Your task to perform on an android device: search for starred emails in the gmail app Image 0: 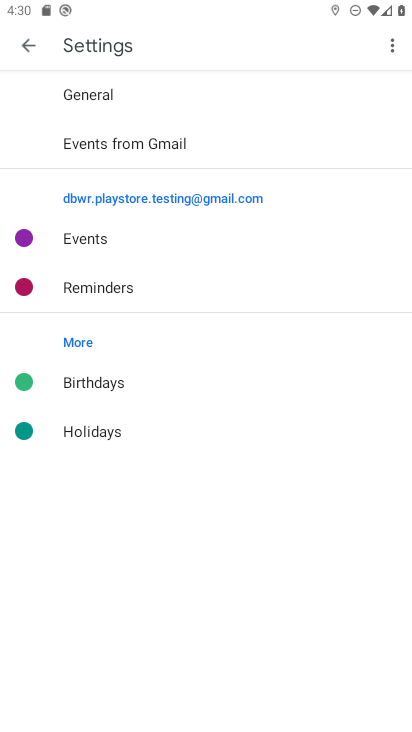
Step 0: press home button
Your task to perform on an android device: search for starred emails in the gmail app Image 1: 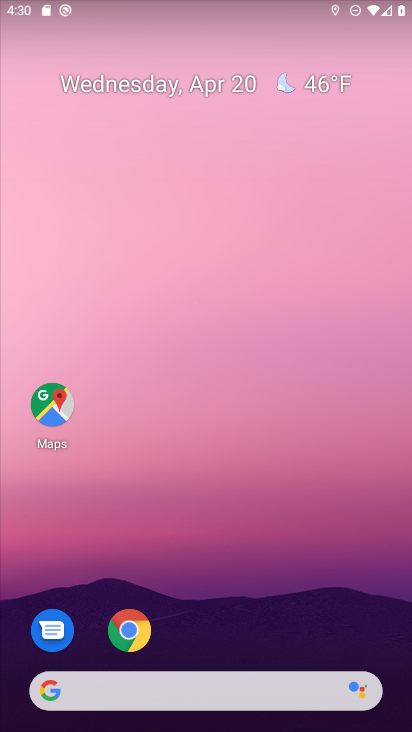
Step 1: drag from (242, 684) to (284, 93)
Your task to perform on an android device: search for starred emails in the gmail app Image 2: 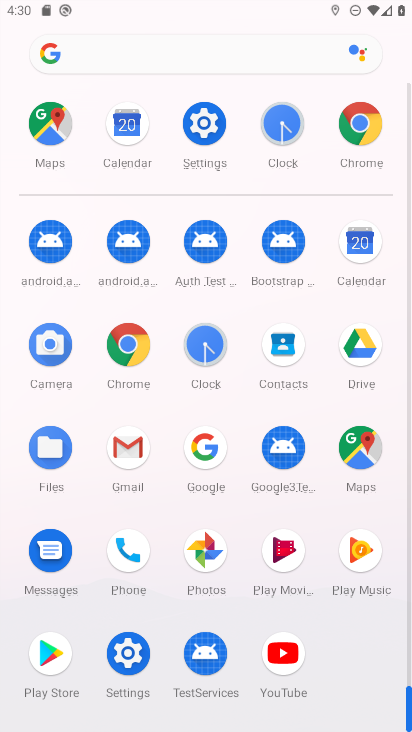
Step 2: click (124, 454)
Your task to perform on an android device: search for starred emails in the gmail app Image 3: 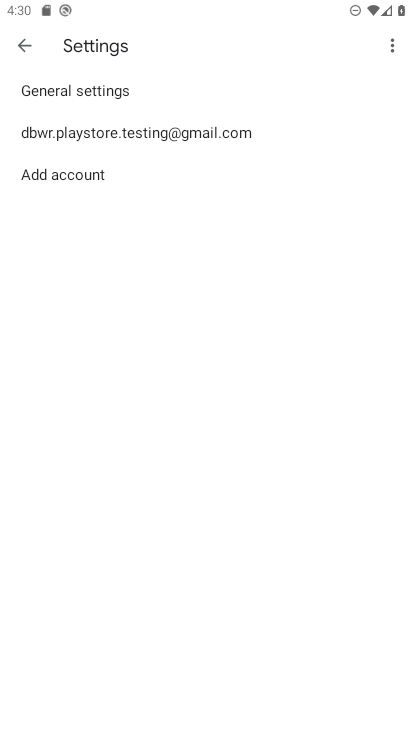
Step 3: click (29, 44)
Your task to perform on an android device: search for starred emails in the gmail app Image 4: 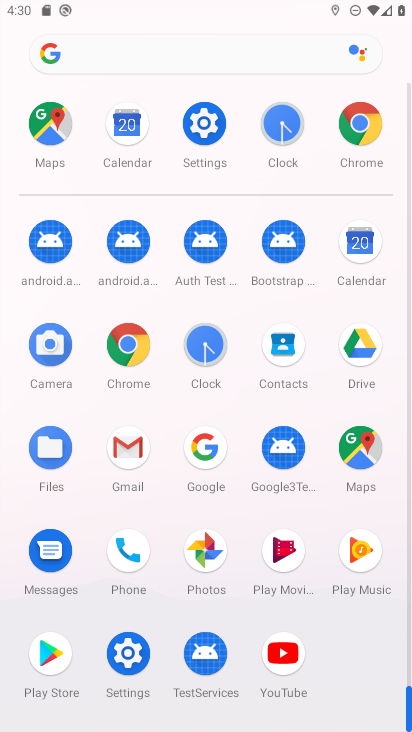
Step 4: click (128, 451)
Your task to perform on an android device: search for starred emails in the gmail app Image 5: 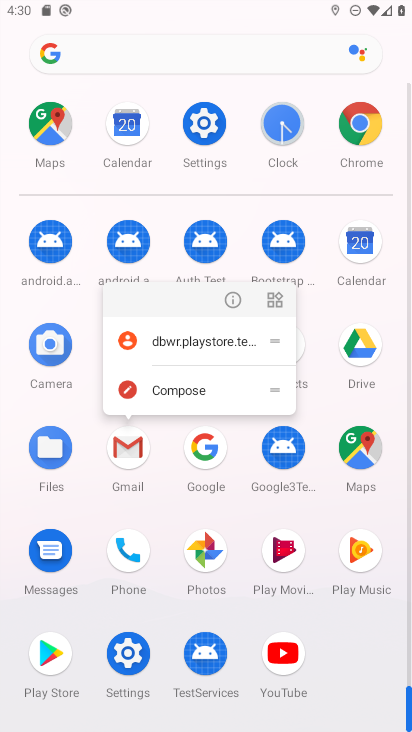
Step 5: click (131, 432)
Your task to perform on an android device: search for starred emails in the gmail app Image 6: 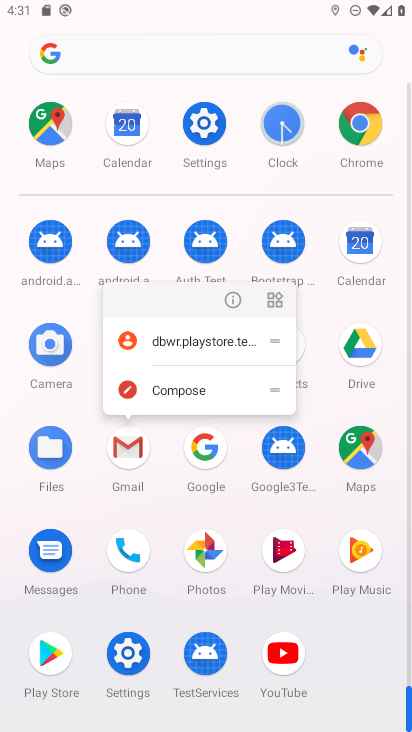
Step 6: click (124, 446)
Your task to perform on an android device: search for starred emails in the gmail app Image 7: 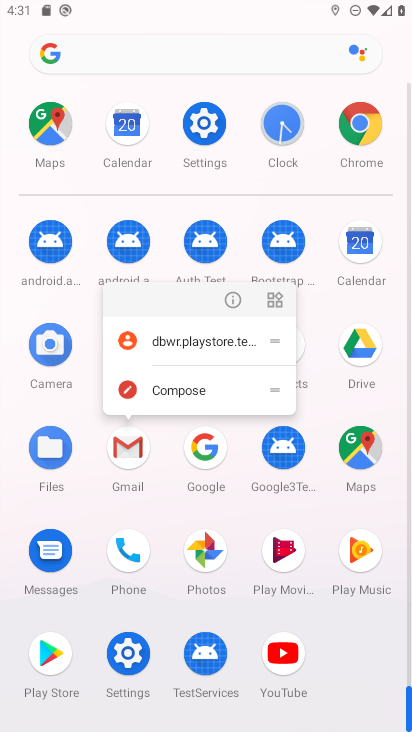
Step 7: click (124, 443)
Your task to perform on an android device: search for starred emails in the gmail app Image 8: 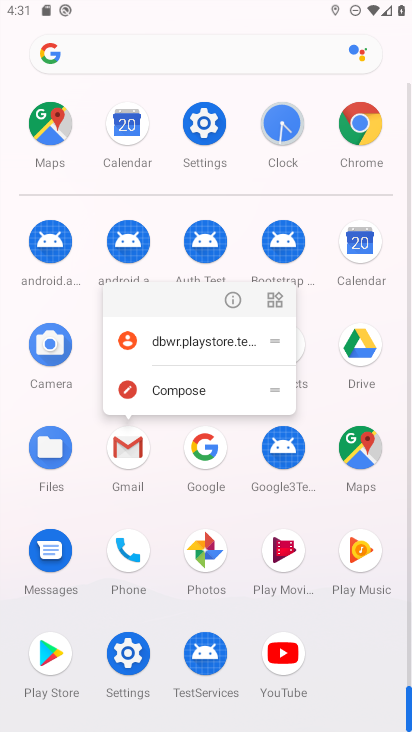
Step 8: click (124, 443)
Your task to perform on an android device: search for starred emails in the gmail app Image 9: 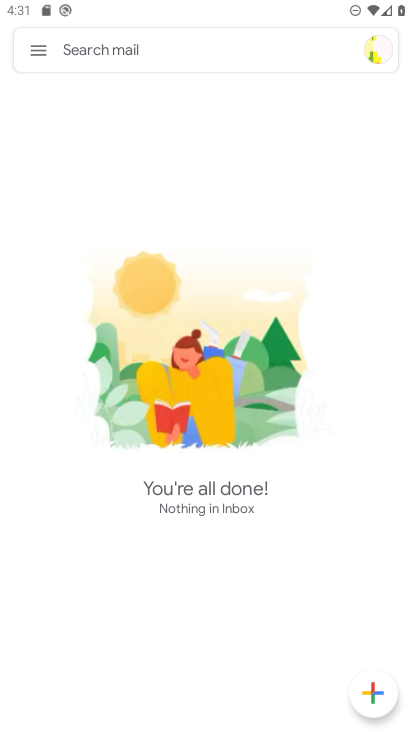
Step 9: click (37, 56)
Your task to perform on an android device: search for starred emails in the gmail app Image 10: 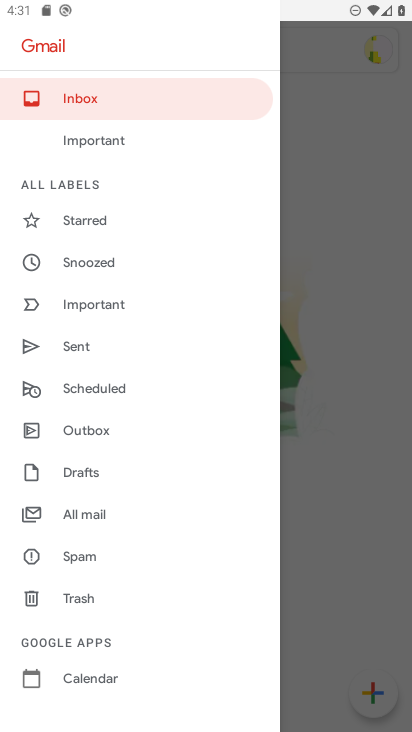
Step 10: click (127, 214)
Your task to perform on an android device: search for starred emails in the gmail app Image 11: 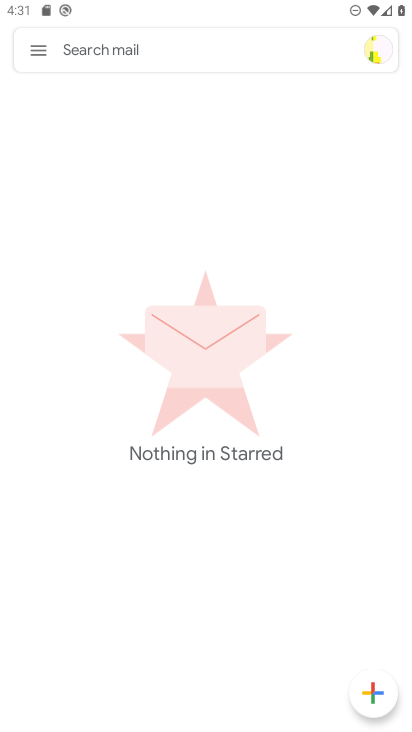
Step 11: task complete